Your task to perform on an android device: turn off smart reply in the gmail app Image 0: 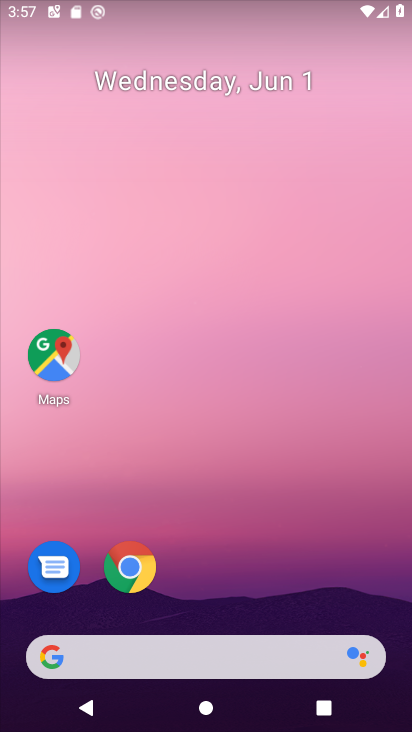
Step 0: drag from (253, 464) to (237, 51)
Your task to perform on an android device: turn off smart reply in the gmail app Image 1: 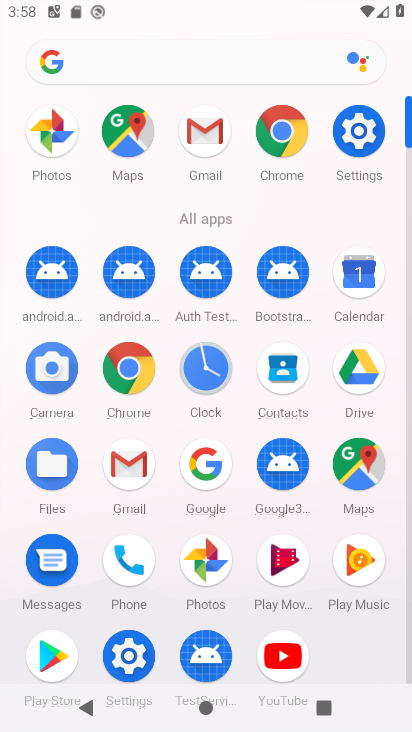
Step 1: click (135, 463)
Your task to perform on an android device: turn off smart reply in the gmail app Image 2: 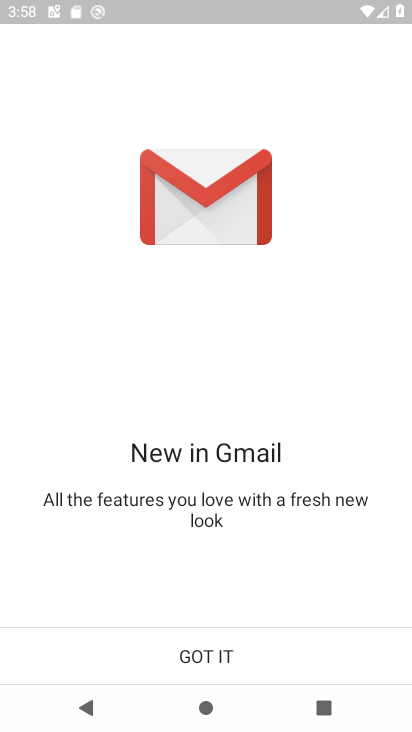
Step 2: click (210, 654)
Your task to perform on an android device: turn off smart reply in the gmail app Image 3: 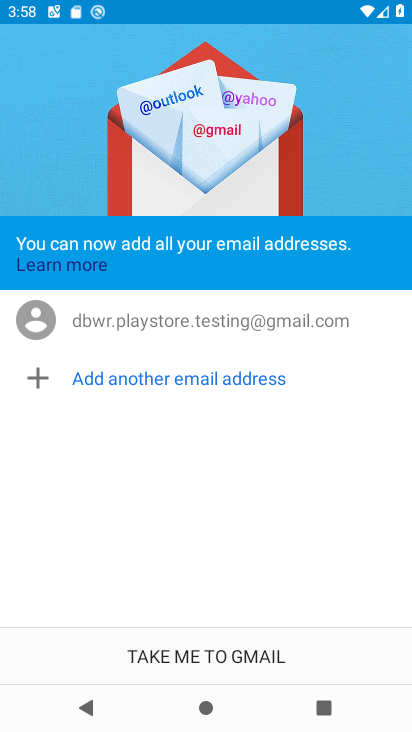
Step 3: click (195, 642)
Your task to perform on an android device: turn off smart reply in the gmail app Image 4: 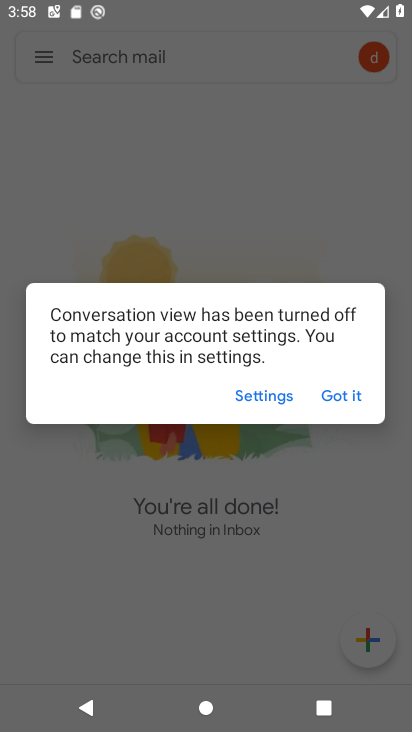
Step 4: click (341, 382)
Your task to perform on an android device: turn off smart reply in the gmail app Image 5: 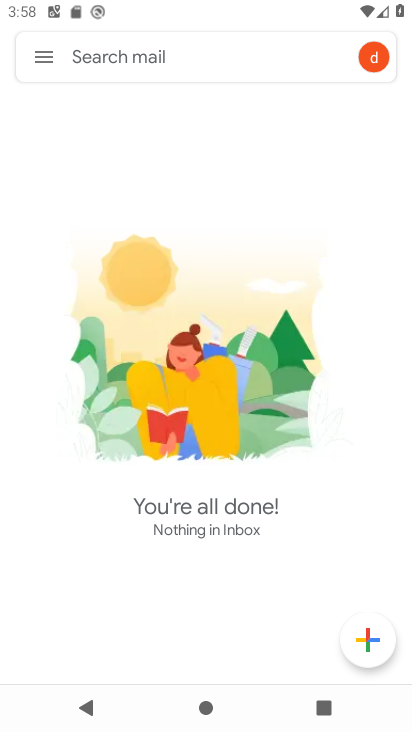
Step 5: click (41, 50)
Your task to perform on an android device: turn off smart reply in the gmail app Image 6: 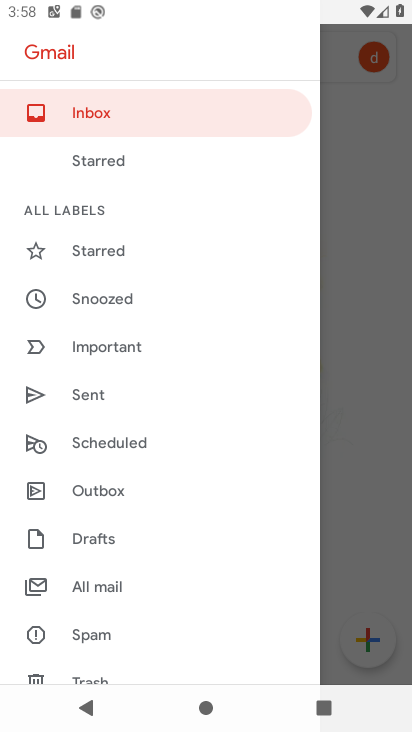
Step 6: drag from (113, 651) to (113, 294)
Your task to perform on an android device: turn off smart reply in the gmail app Image 7: 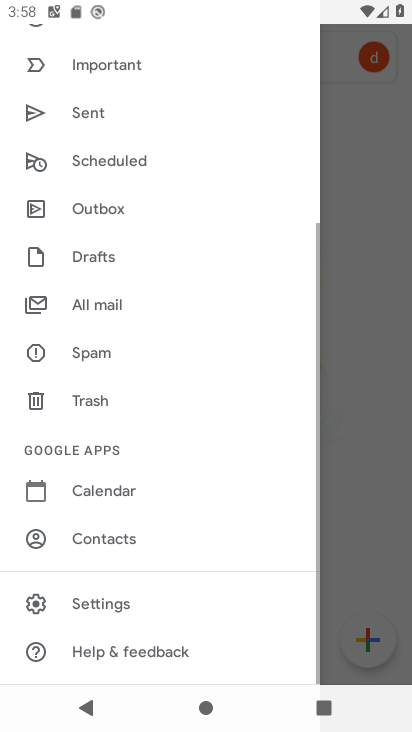
Step 7: click (79, 612)
Your task to perform on an android device: turn off smart reply in the gmail app Image 8: 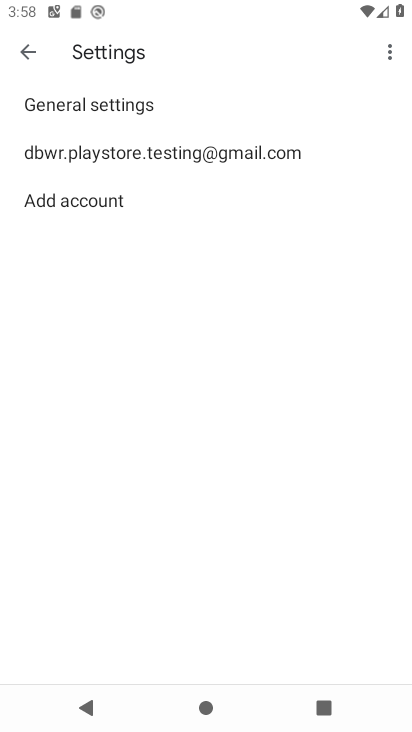
Step 8: click (179, 161)
Your task to perform on an android device: turn off smart reply in the gmail app Image 9: 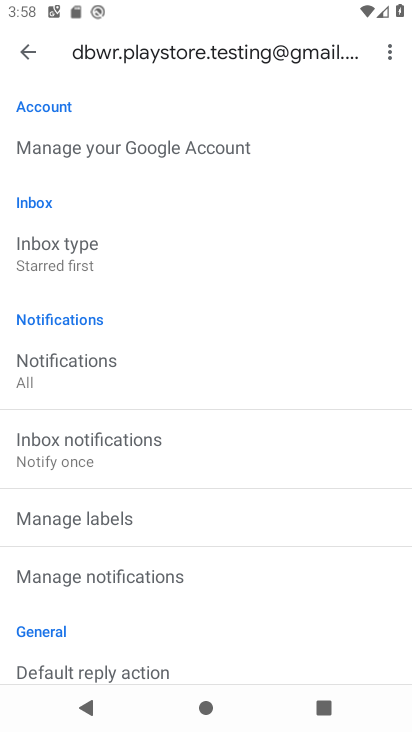
Step 9: drag from (168, 678) to (164, 446)
Your task to perform on an android device: turn off smart reply in the gmail app Image 10: 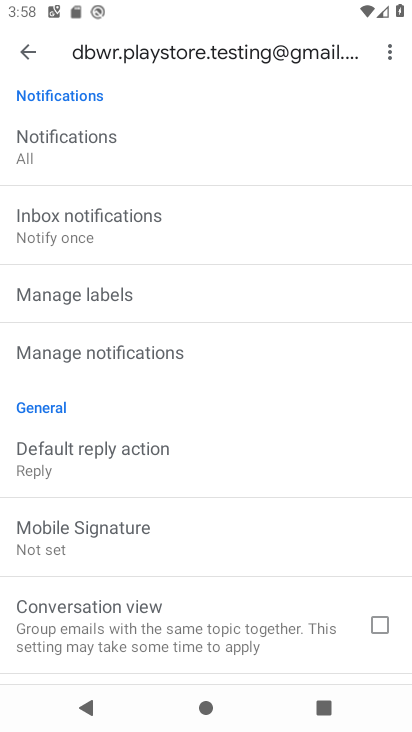
Step 10: drag from (171, 641) to (173, 434)
Your task to perform on an android device: turn off smart reply in the gmail app Image 11: 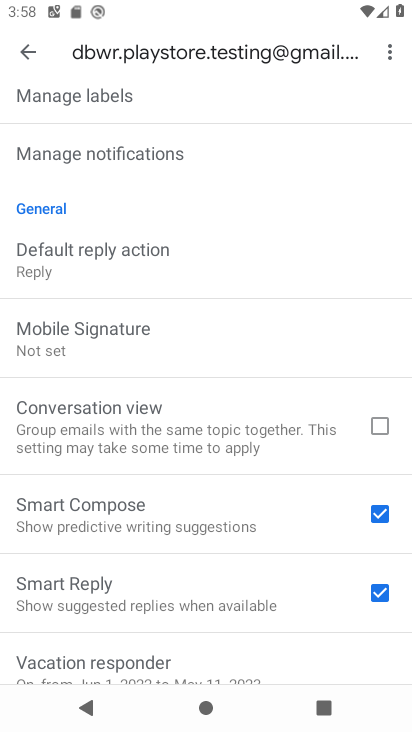
Step 11: click (374, 590)
Your task to perform on an android device: turn off smart reply in the gmail app Image 12: 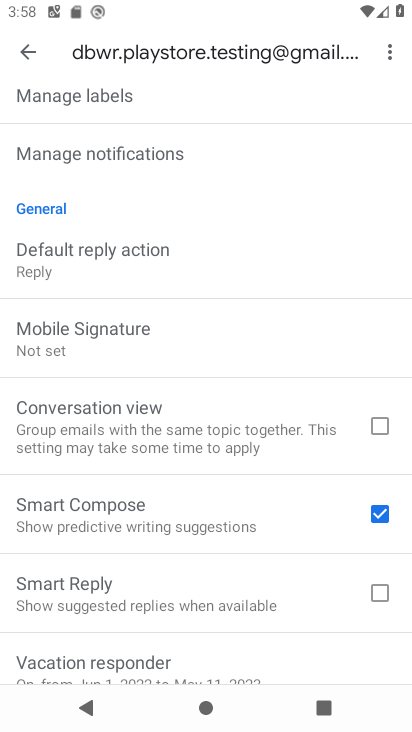
Step 12: task complete